Your task to perform on an android device: allow cookies in the chrome app Image 0: 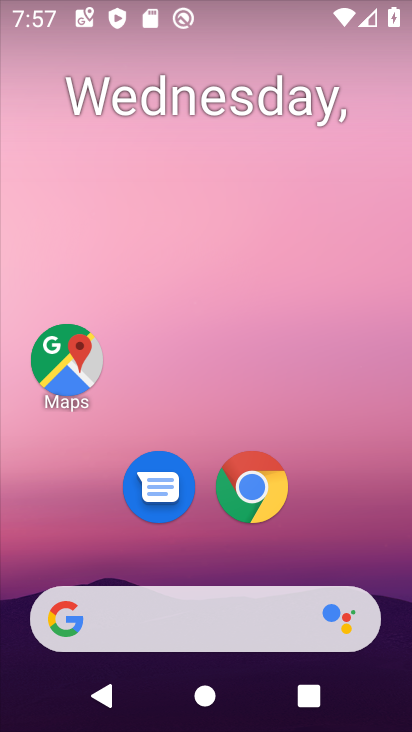
Step 0: drag from (387, 551) to (374, 223)
Your task to perform on an android device: allow cookies in the chrome app Image 1: 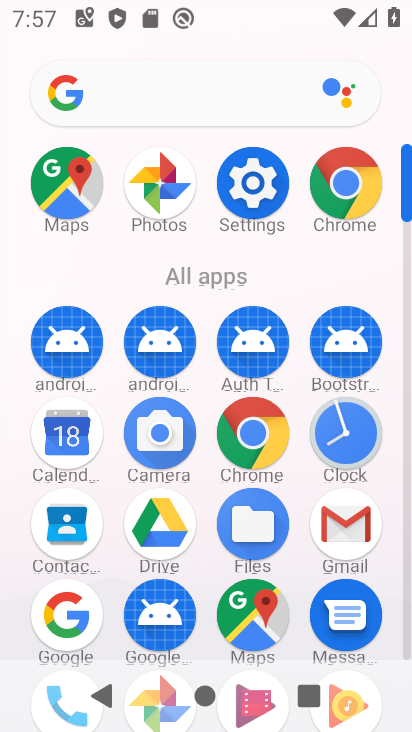
Step 1: drag from (233, 531) to (239, 454)
Your task to perform on an android device: allow cookies in the chrome app Image 2: 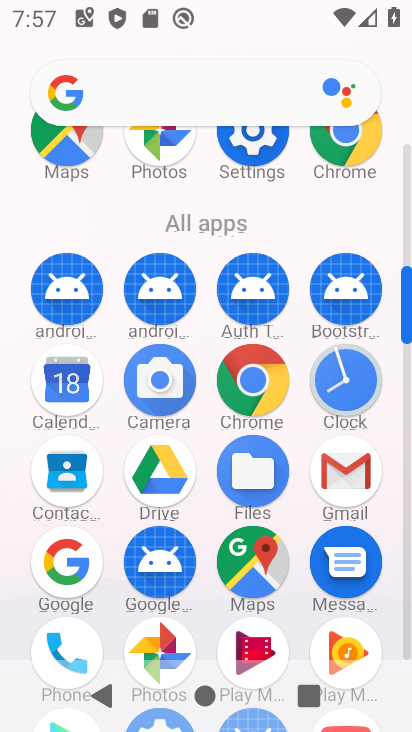
Step 2: click (264, 402)
Your task to perform on an android device: allow cookies in the chrome app Image 3: 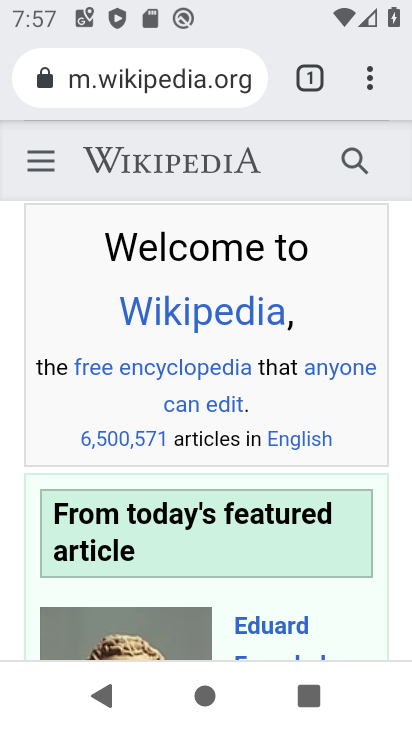
Step 3: click (368, 83)
Your task to perform on an android device: allow cookies in the chrome app Image 4: 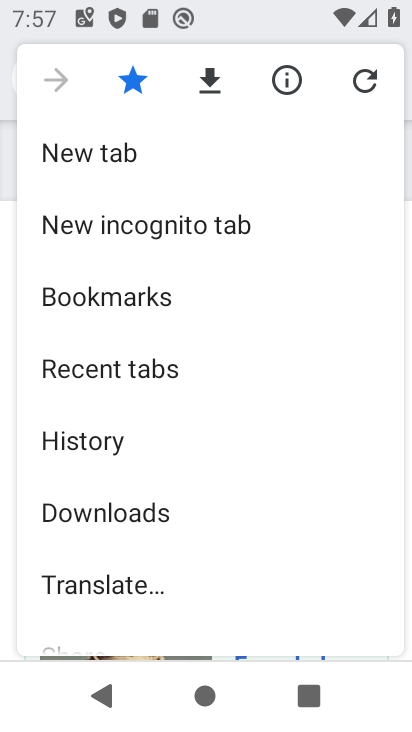
Step 4: drag from (276, 500) to (289, 374)
Your task to perform on an android device: allow cookies in the chrome app Image 5: 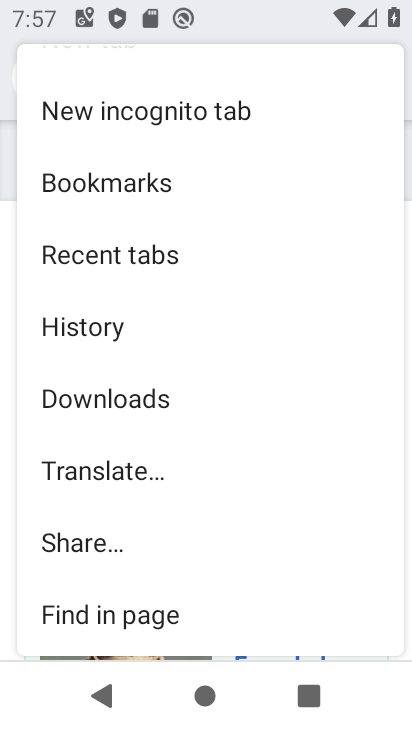
Step 5: drag from (272, 555) to (274, 463)
Your task to perform on an android device: allow cookies in the chrome app Image 6: 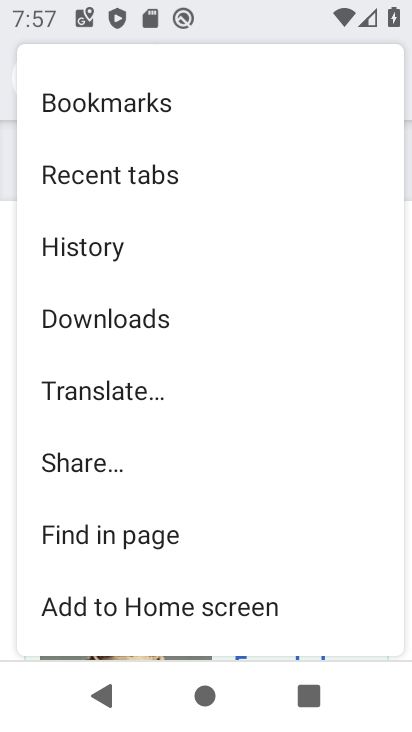
Step 6: drag from (294, 583) to (281, 477)
Your task to perform on an android device: allow cookies in the chrome app Image 7: 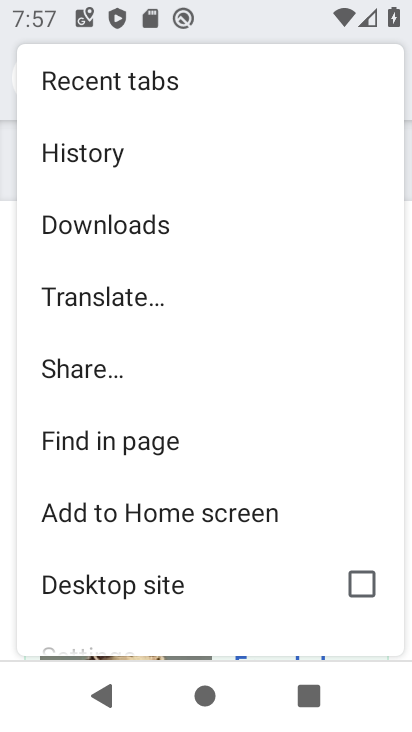
Step 7: drag from (262, 588) to (281, 470)
Your task to perform on an android device: allow cookies in the chrome app Image 8: 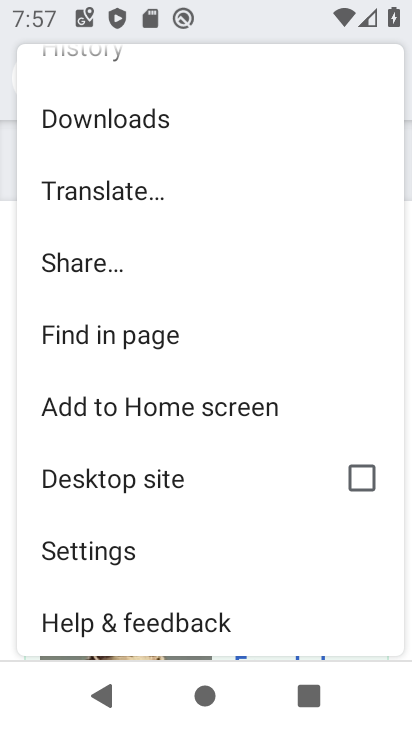
Step 8: drag from (258, 575) to (262, 501)
Your task to perform on an android device: allow cookies in the chrome app Image 9: 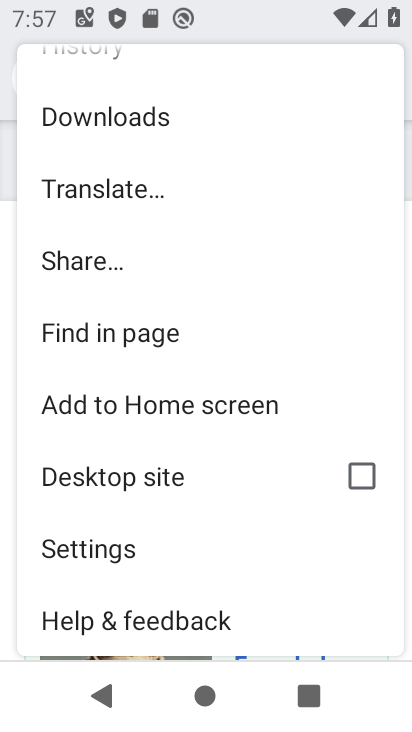
Step 9: click (201, 558)
Your task to perform on an android device: allow cookies in the chrome app Image 10: 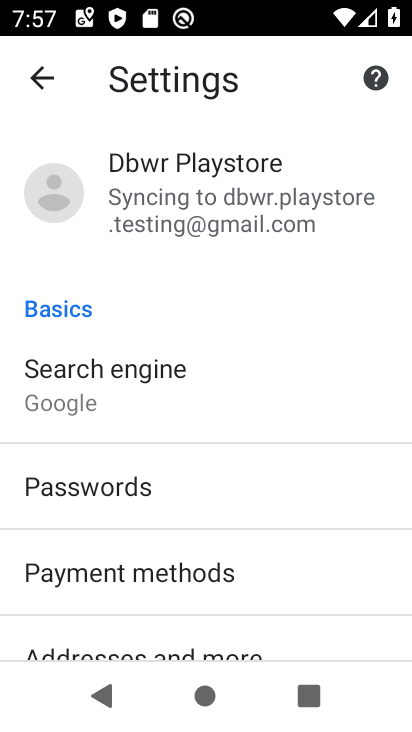
Step 10: drag from (322, 616) to (335, 530)
Your task to perform on an android device: allow cookies in the chrome app Image 11: 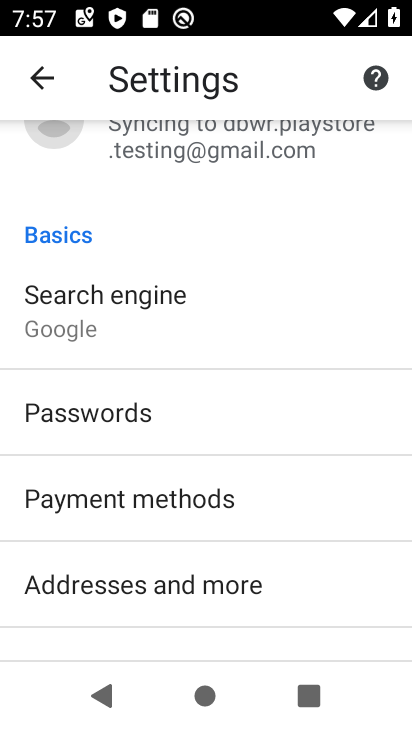
Step 11: drag from (342, 626) to (342, 554)
Your task to perform on an android device: allow cookies in the chrome app Image 12: 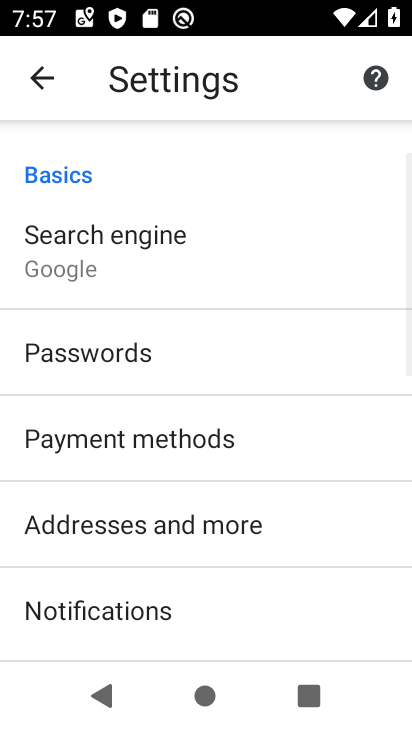
Step 12: drag from (339, 622) to (342, 537)
Your task to perform on an android device: allow cookies in the chrome app Image 13: 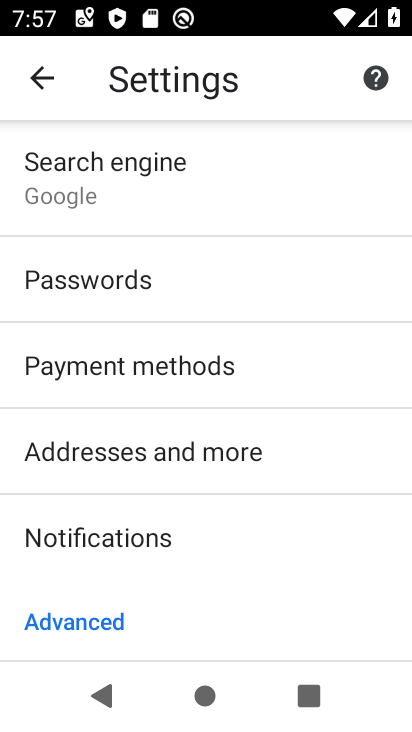
Step 13: drag from (329, 607) to (337, 518)
Your task to perform on an android device: allow cookies in the chrome app Image 14: 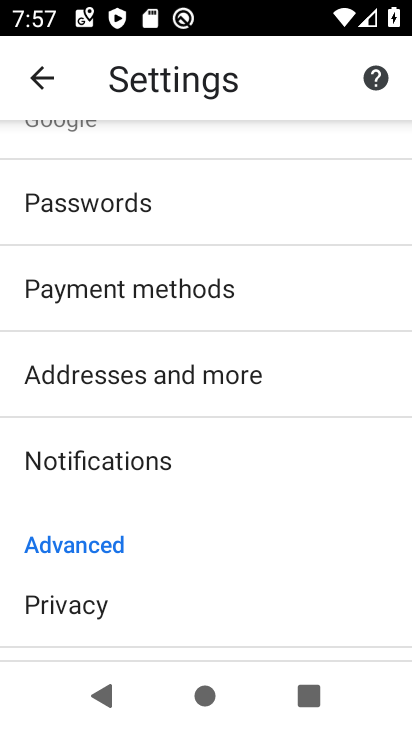
Step 14: drag from (351, 613) to (353, 532)
Your task to perform on an android device: allow cookies in the chrome app Image 15: 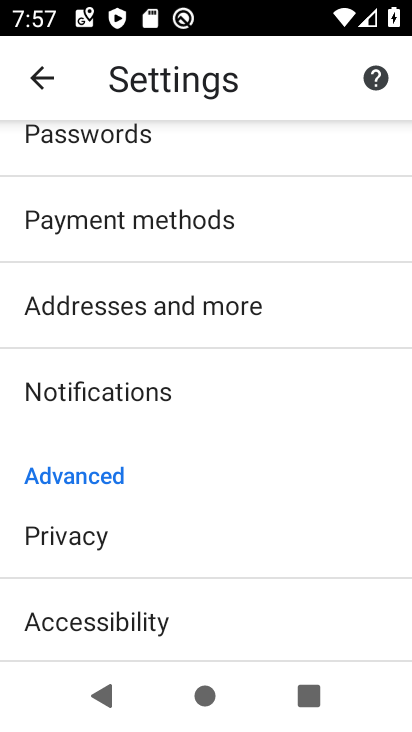
Step 15: drag from (348, 614) to (349, 546)
Your task to perform on an android device: allow cookies in the chrome app Image 16: 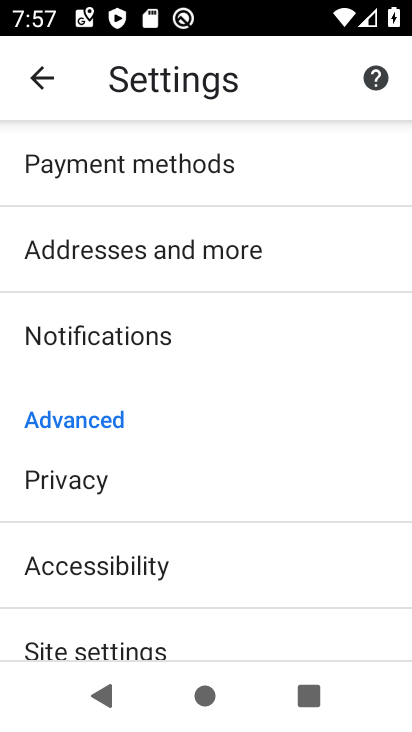
Step 16: drag from (357, 622) to (359, 524)
Your task to perform on an android device: allow cookies in the chrome app Image 17: 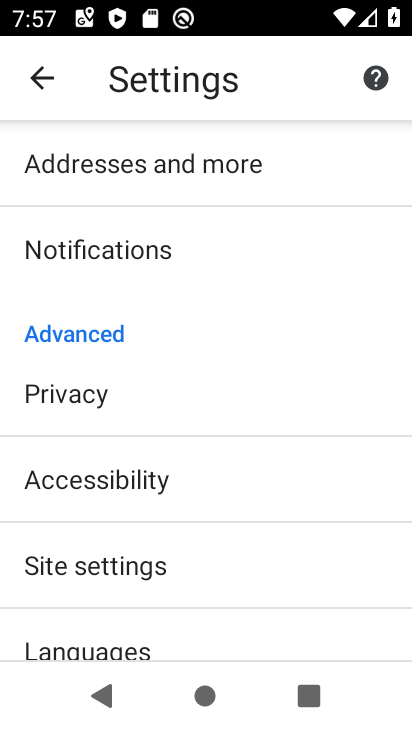
Step 17: drag from (338, 603) to (341, 525)
Your task to perform on an android device: allow cookies in the chrome app Image 18: 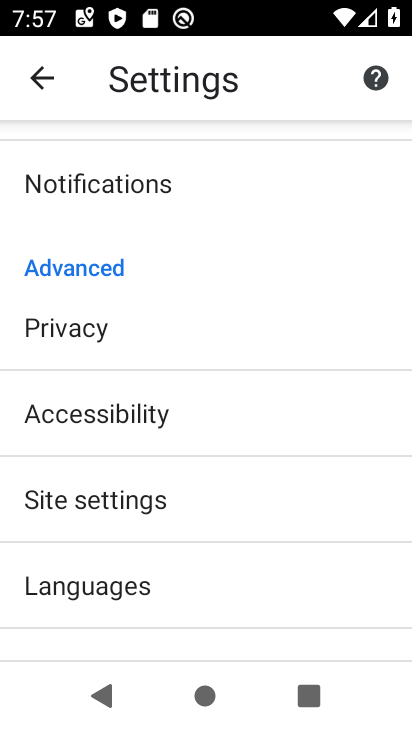
Step 18: click (255, 516)
Your task to perform on an android device: allow cookies in the chrome app Image 19: 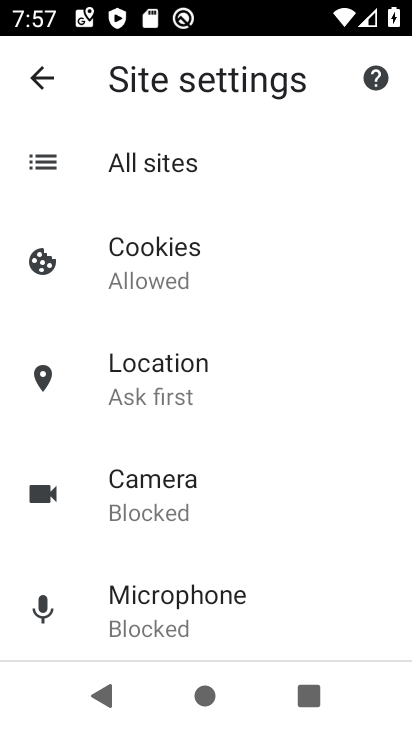
Step 19: click (184, 269)
Your task to perform on an android device: allow cookies in the chrome app Image 20: 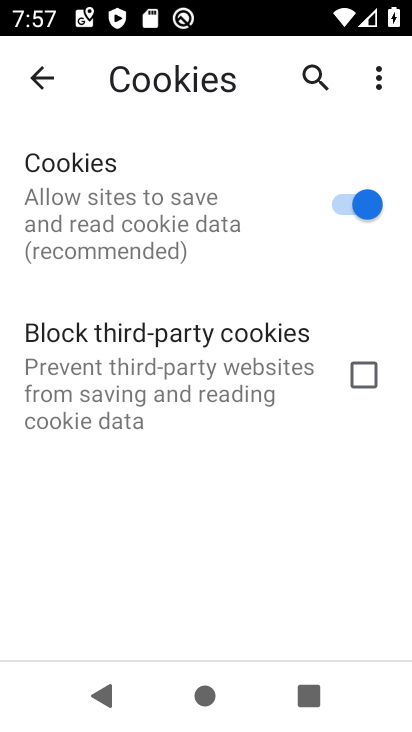
Step 20: task complete